Your task to perform on an android device: open chrome and create a bookmark for the current page Image 0: 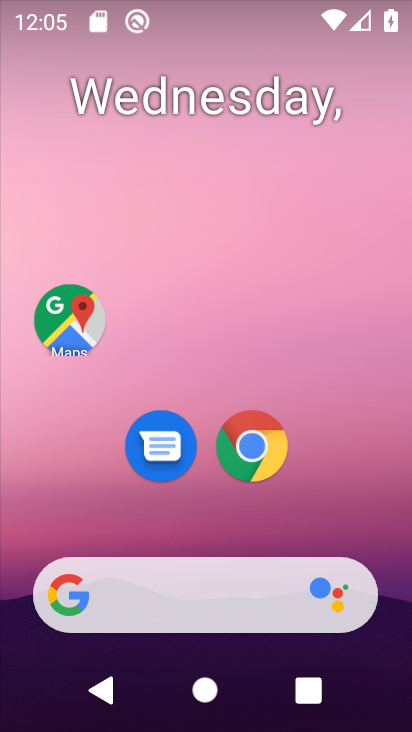
Step 0: click (257, 445)
Your task to perform on an android device: open chrome and create a bookmark for the current page Image 1: 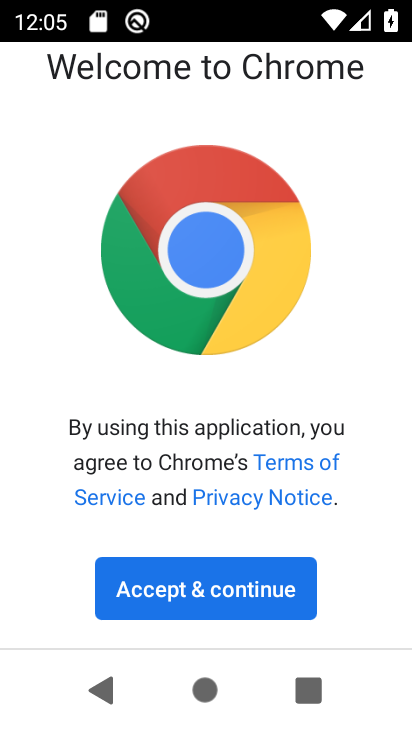
Step 1: click (199, 586)
Your task to perform on an android device: open chrome and create a bookmark for the current page Image 2: 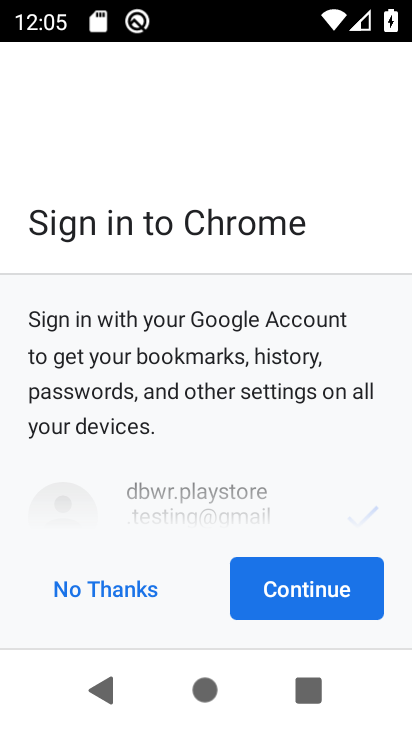
Step 2: click (116, 589)
Your task to perform on an android device: open chrome and create a bookmark for the current page Image 3: 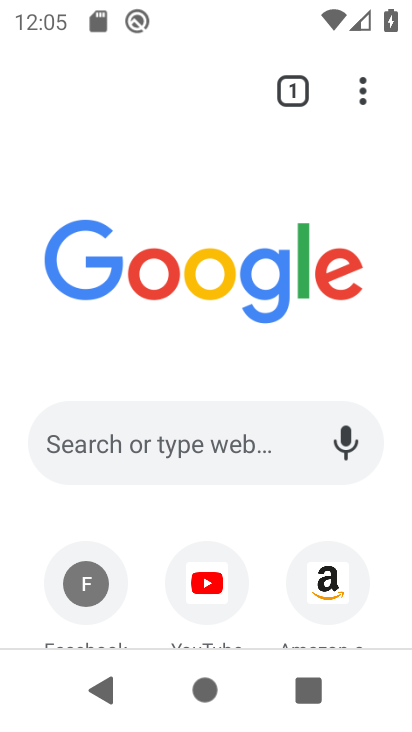
Step 3: click (366, 90)
Your task to perform on an android device: open chrome and create a bookmark for the current page Image 4: 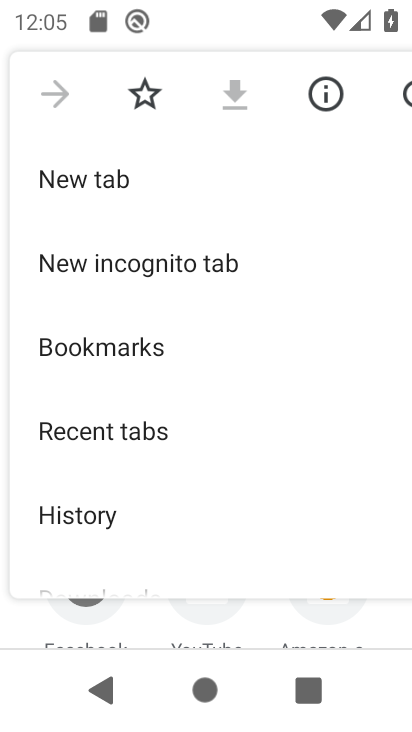
Step 4: click (156, 94)
Your task to perform on an android device: open chrome and create a bookmark for the current page Image 5: 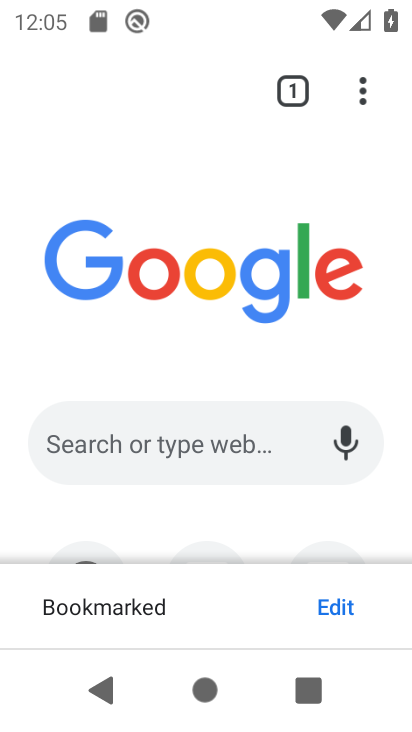
Step 5: task complete